Your task to perform on an android device: toggle priority inbox in the gmail app Image 0: 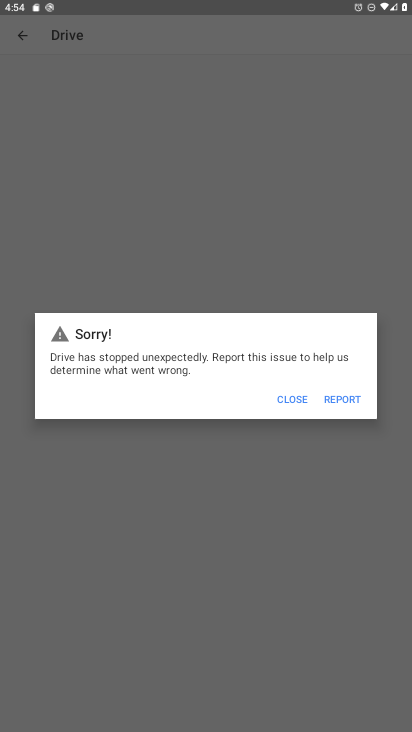
Step 0: press home button
Your task to perform on an android device: toggle priority inbox in the gmail app Image 1: 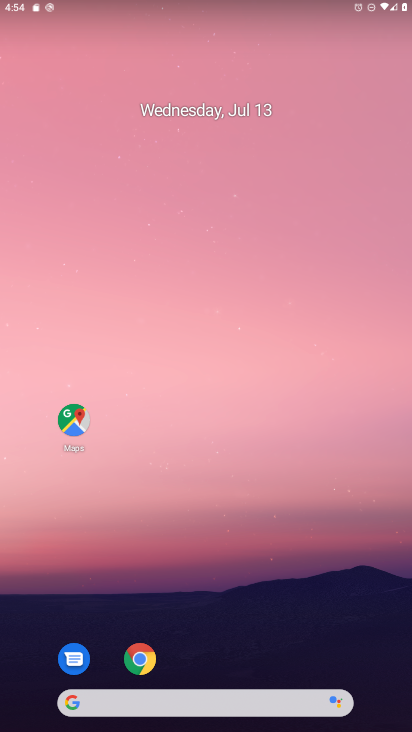
Step 1: drag from (314, 530) to (181, 97)
Your task to perform on an android device: toggle priority inbox in the gmail app Image 2: 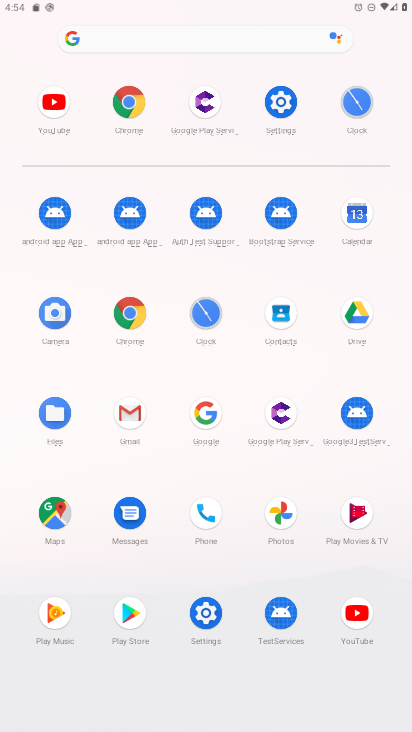
Step 2: click (146, 419)
Your task to perform on an android device: toggle priority inbox in the gmail app Image 3: 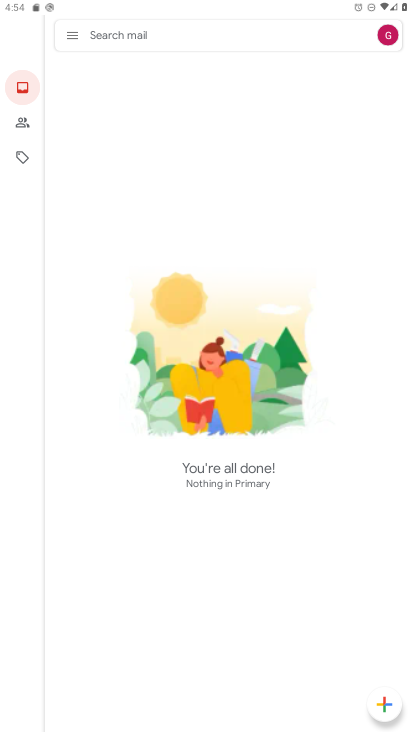
Step 3: click (68, 30)
Your task to perform on an android device: toggle priority inbox in the gmail app Image 4: 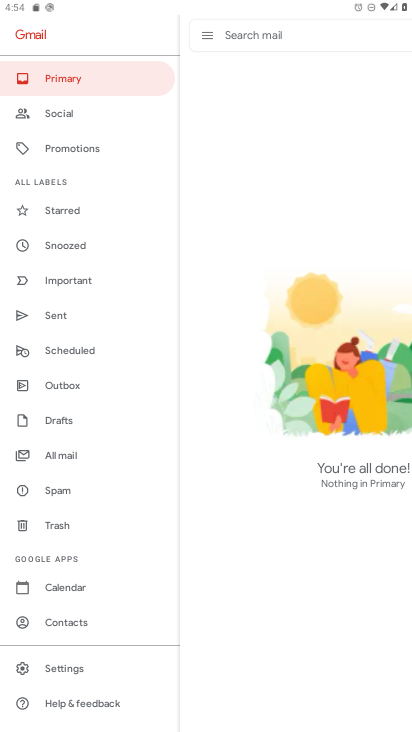
Step 4: click (72, 668)
Your task to perform on an android device: toggle priority inbox in the gmail app Image 5: 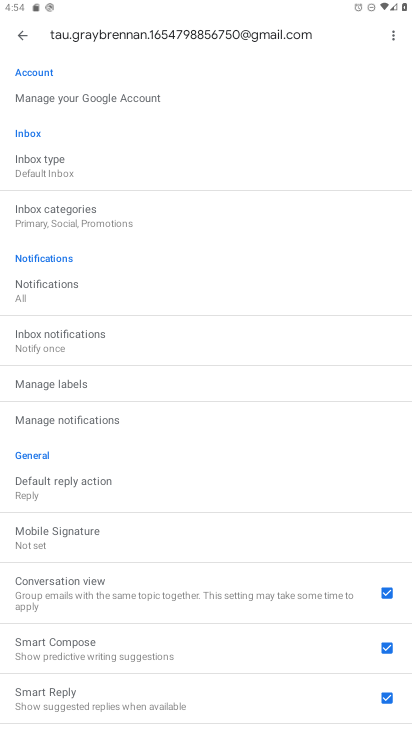
Step 5: click (62, 159)
Your task to perform on an android device: toggle priority inbox in the gmail app Image 6: 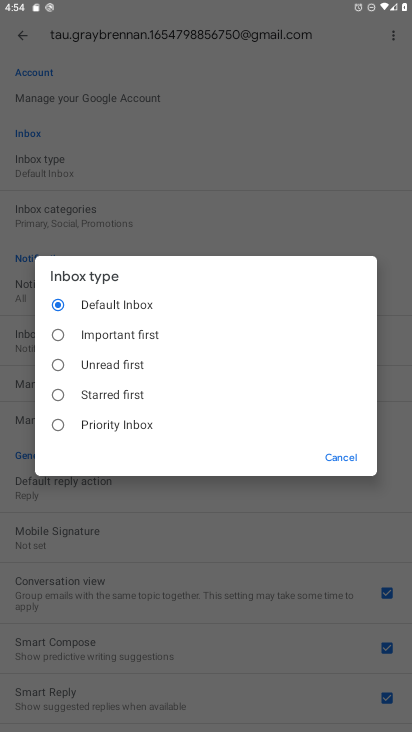
Step 6: click (111, 420)
Your task to perform on an android device: toggle priority inbox in the gmail app Image 7: 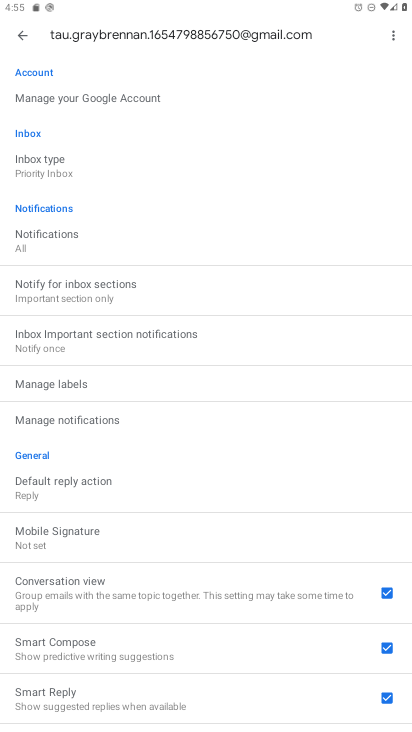
Step 7: task complete